Your task to perform on an android device: visit the assistant section in the google photos Image 0: 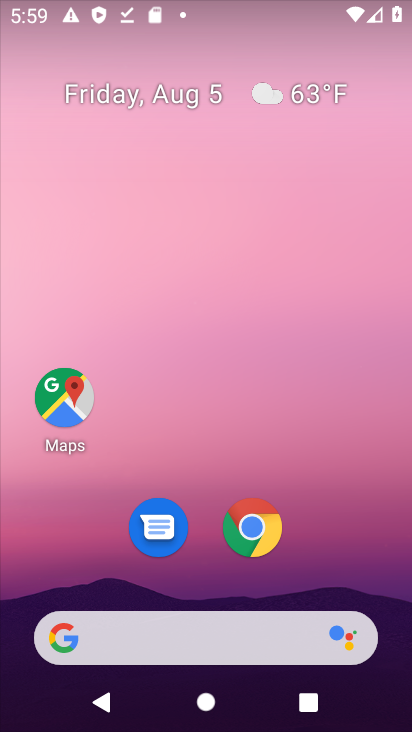
Step 0: drag from (193, 466) to (202, 228)
Your task to perform on an android device: visit the assistant section in the google photos Image 1: 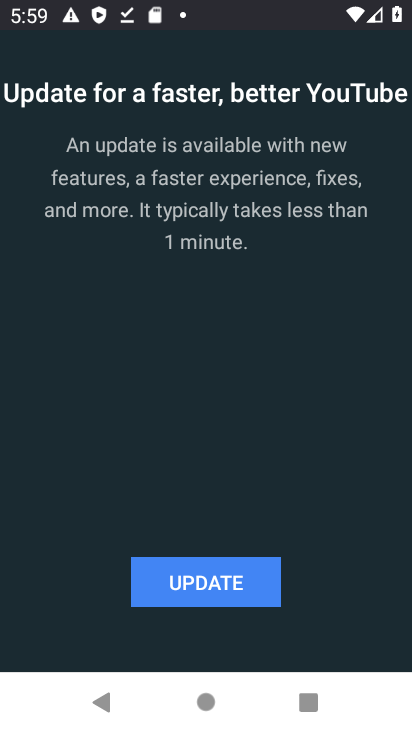
Step 1: press home button
Your task to perform on an android device: visit the assistant section in the google photos Image 2: 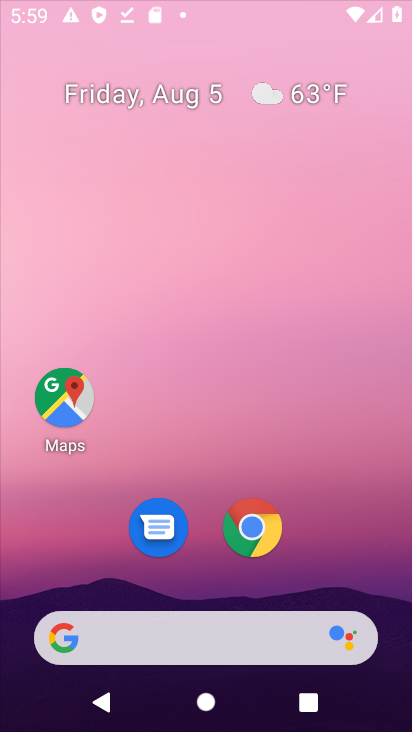
Step 2: drag from (217, 610) to (94, 32)
Your task to perform on an android device: visit the assistant section in the google photos Image 3: 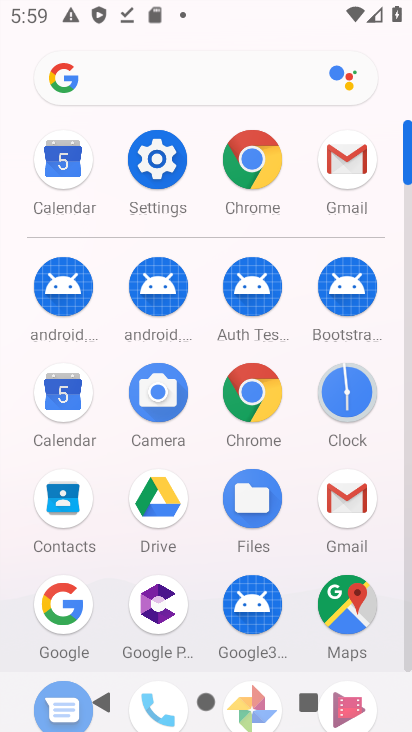
Step 3: drag from (208, 603) to (207, 168)
Your task to perform on an android device: visit the assistant section in the google photos Image 4: 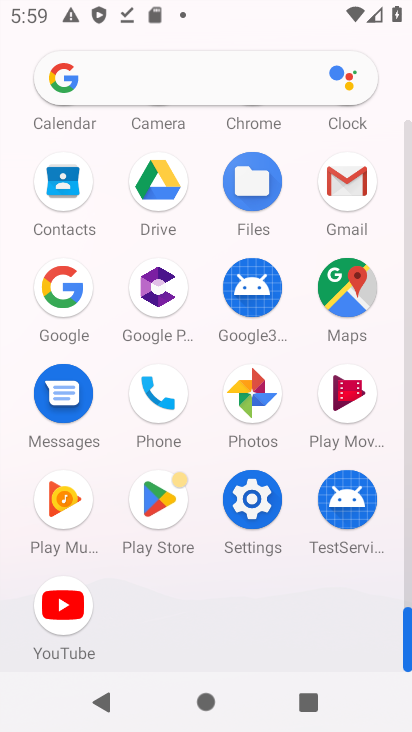
Step 4: click (258, 378)
Your task to perform on an android device: visit the assistant section in the google photos Image 5: 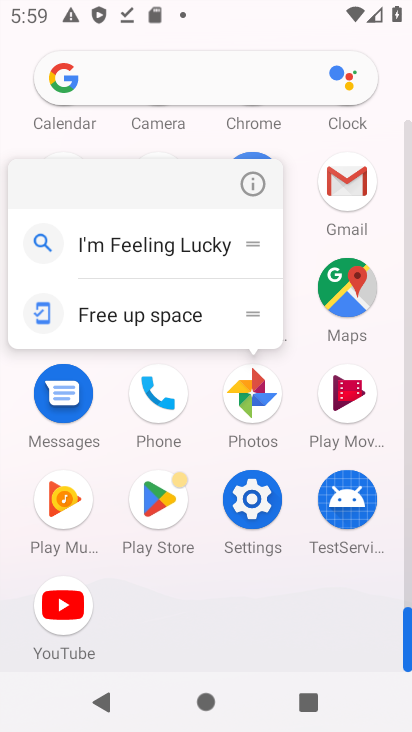
Step 5: click (250, 177)
Your task to perform on an android device: visit the assistant section in the google photos Image 6: 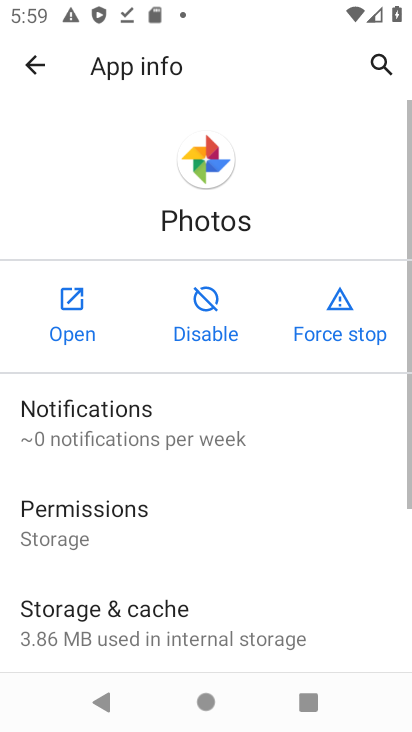
Step 6: click (60, 300)
Your task to perform on an android device: visit the assistant section in the google photos Image 7: 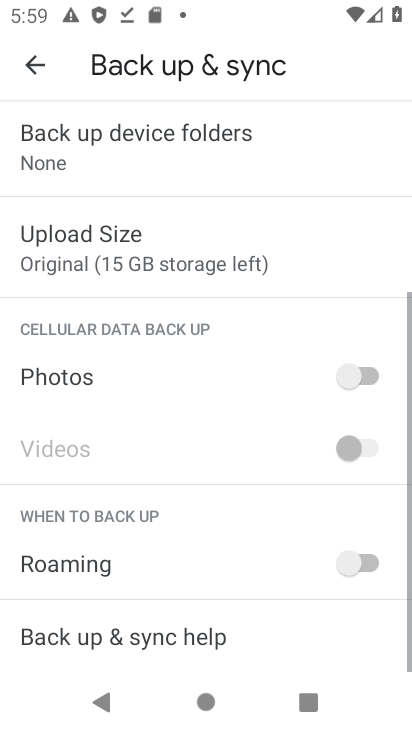
Step 7: drag from (208, 239) to (261, 718)
Your task to perform on an android device: visit the assistant section in the google photos Image 8: 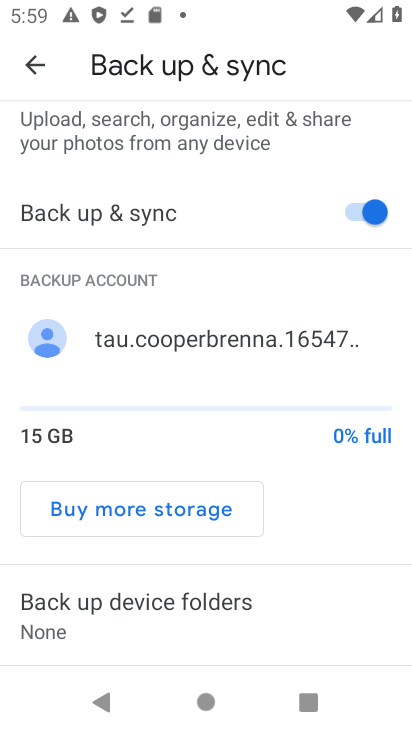
Step 8: click (43, 73)
Your task to perform on an android device: visit the assistant section in the google photos Image 9: 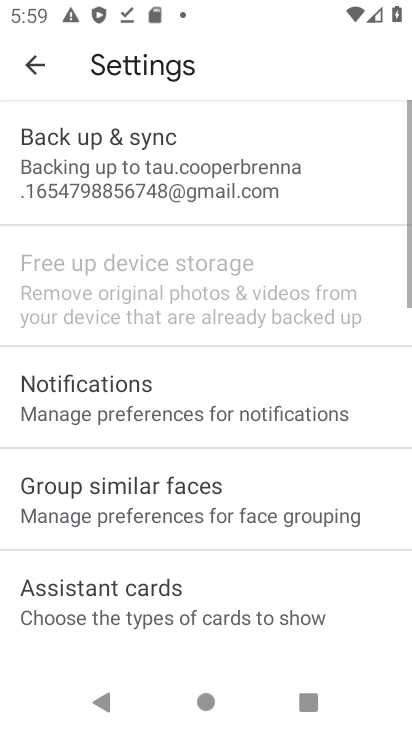
Step 9: click (25, 62)
Your task to perform on an android device: visit the assistant section in the google photos Image 10: 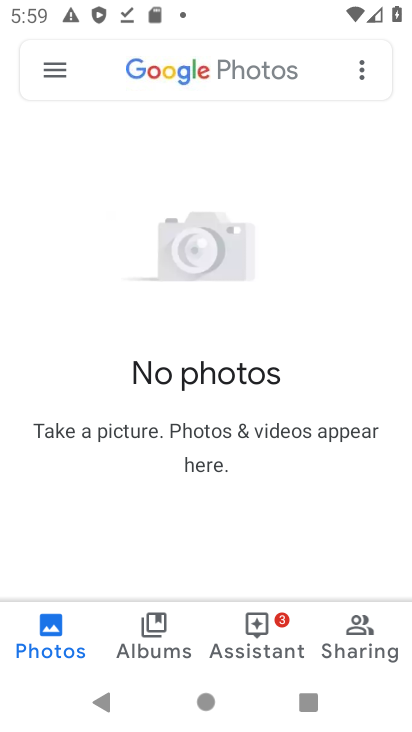
Step 10: click (47, 67)
Your task to perform on an android device: visit the assistant section in the google photos Image 11: 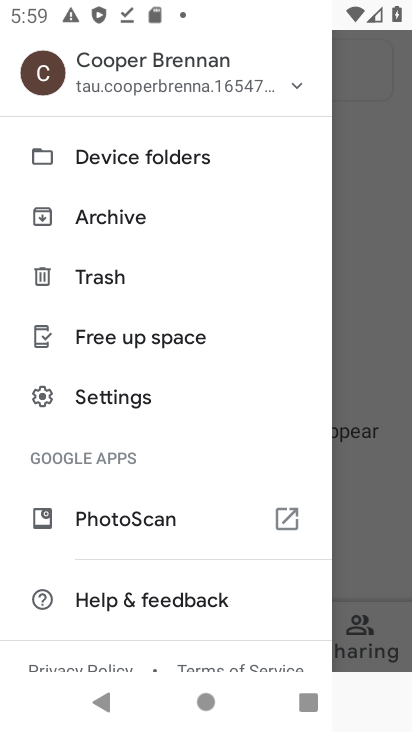
Step 11: click (371, 524)
Your task to perform on an android device: visit the assistant section in the google photos Image 12: 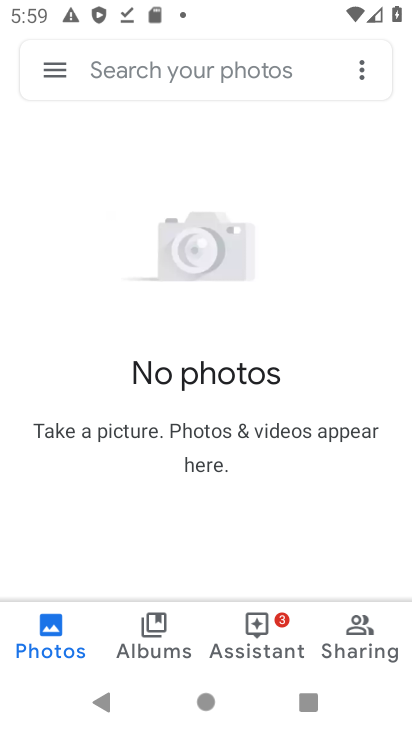
Step 12: click (260, 624)
Your task to perform on an android device: visit the assistant section in the google photos Image 13: 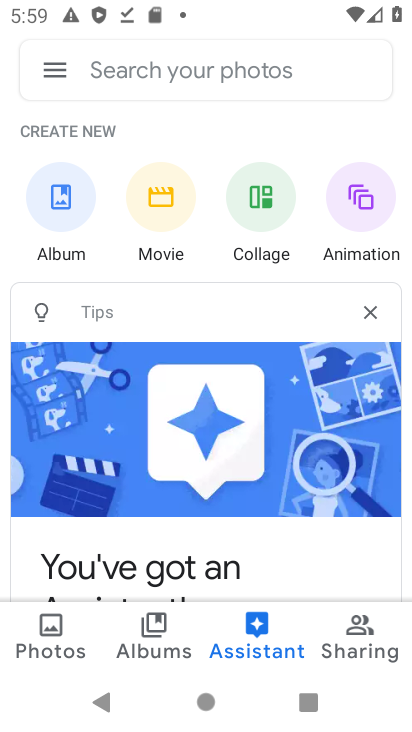
Step 13: task complete